Your task to perform on an android device: turn notification dots off Image 0: 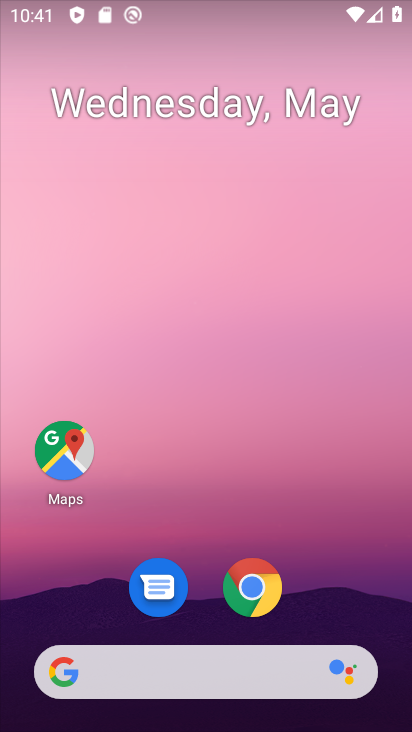
Step 0: drag from (202, 613) to (351, 344)
Your task to perform on an android device: turn notification dots off Image 1: 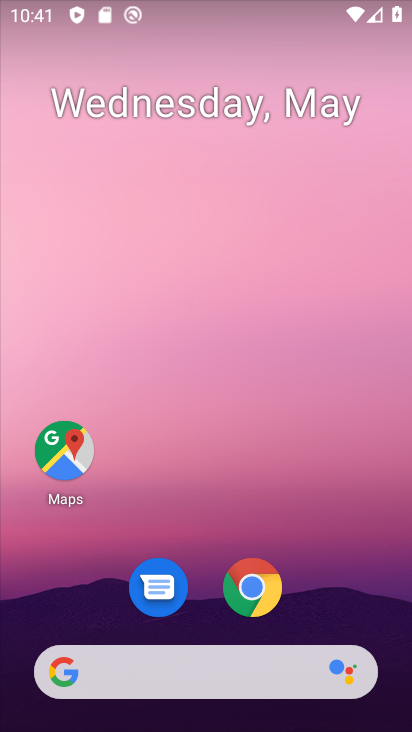
Step 1: drag from (236, 542) to (243, 1)
Your task to perform on an android device: turn notification dots off Image 2: 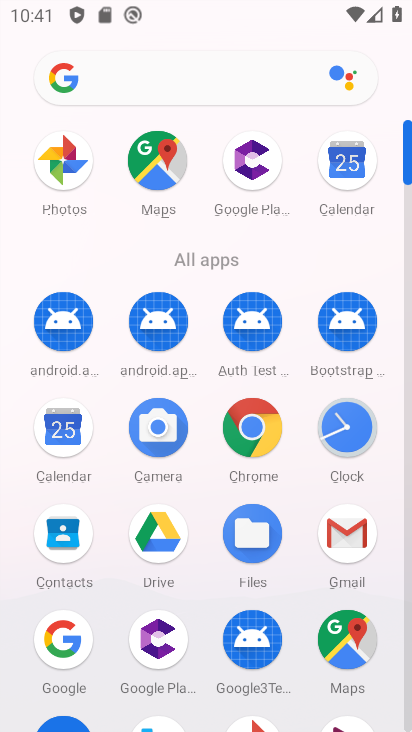
Step 2: drag from (142, 612) to (169, 227)
Your task to perform on an android device: turn notification dots off Image 3: 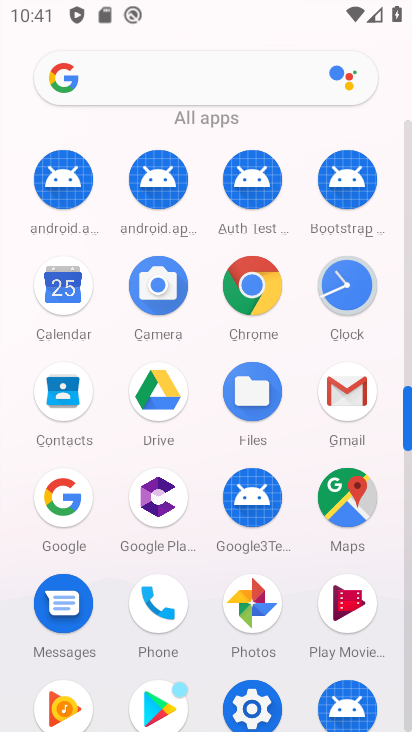
Step 3: click (255, 699)
Your task to perform on an android device: turn notification dots off Image 4: 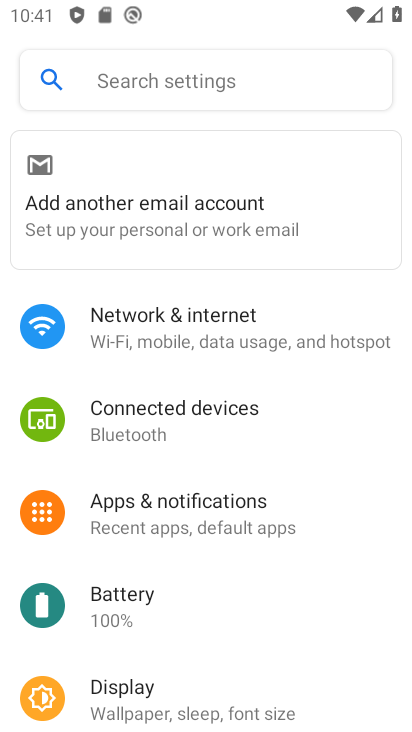
Step 4: click (186, 532)
Your task to perform on an android device: turn notification dots off Image 5: 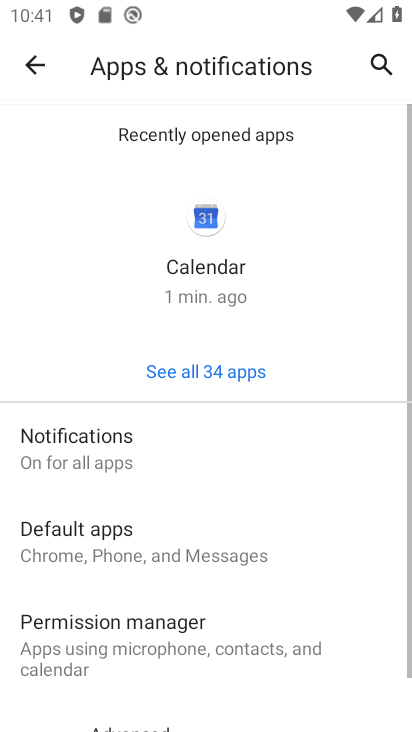
Step 5: click (110, 467)
Your task to perform on an android device: turn notification dots off Image 6: 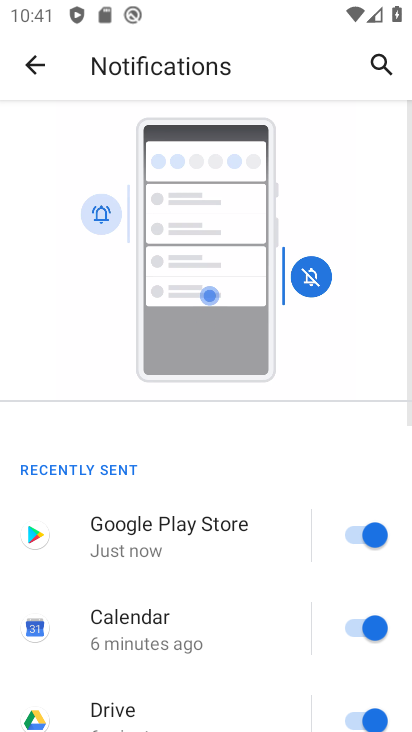
Step 6: drag from (216, 650) to (239, 214)
Your task to perform on an android device: turn notification dots off Image 7: 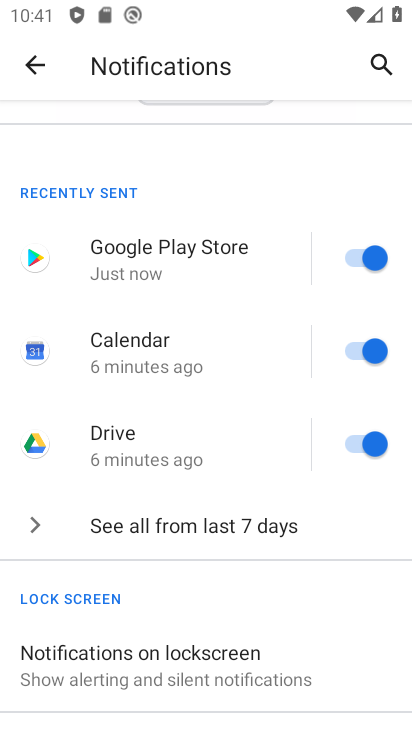
Step 7: drag from (218, 653) to (230, 464)
Your task to perform on an android device: turn notification dots off Image 8: 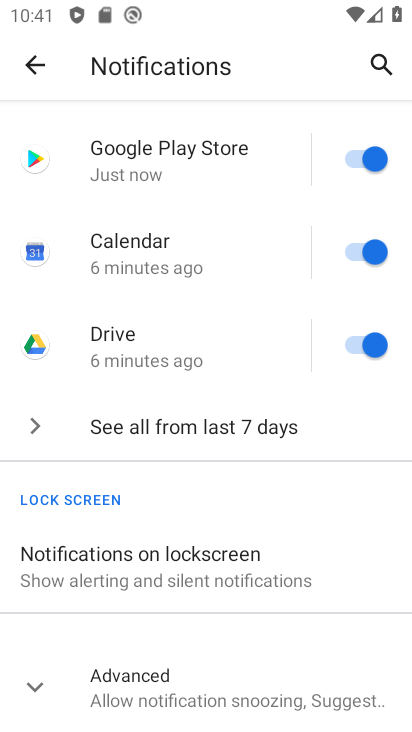
Step 8: click (133, 680)
Your task to perform on an android device: turn notification dots off Image 9: 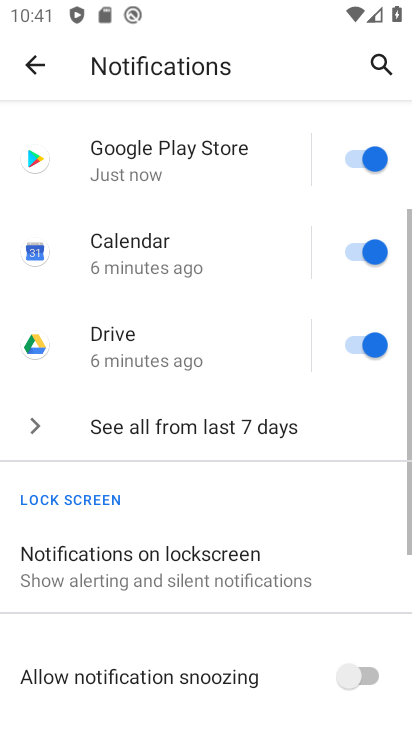
Step 9: drag from (133, 680) to (157, 446)
Your task to perform on an android device: turn notification dots off Image 10: 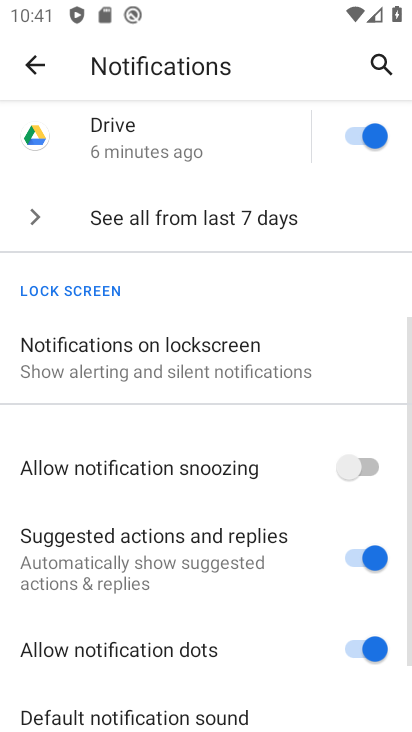
Step 10: drag from (275, 645) to (301, 313)
Your task to perform on an android device: turn notification dots off Image 11: 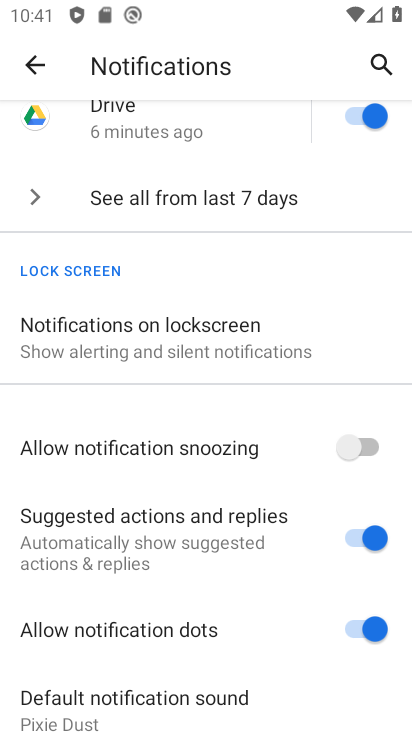
Step 11: click (350, 636)
Your task to perform on an android device: turn notification dots off Image 12: 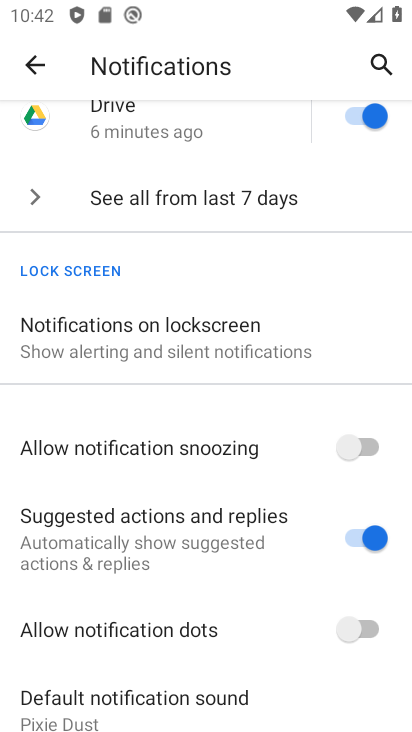
Step 12: task complete